Your task to perform on an android device: turn pop-ups on in chrome Image 0: 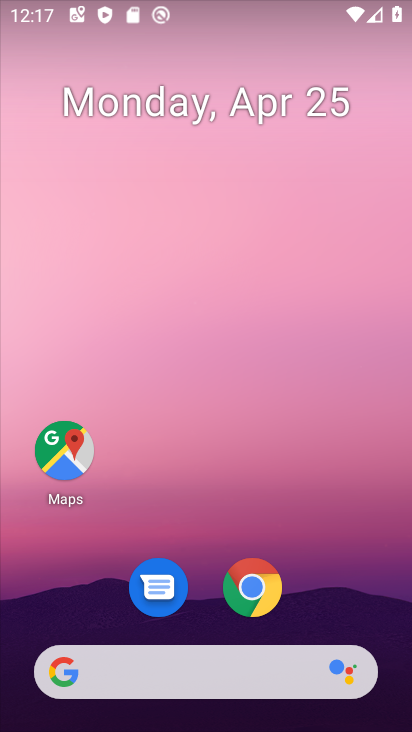
Step 0: drag from (354, 558) to (277, 139)
Your task to perform on an android device: turn pop-ups on in chrome Image 1: 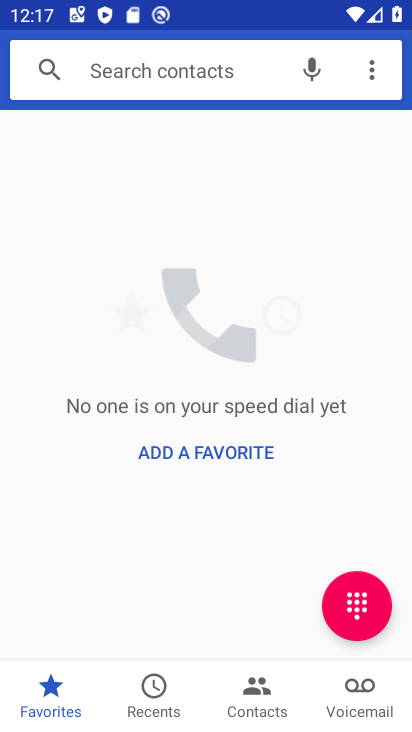
Step 1: press home button
Your task to perform on an android device: turn pop-ups on in chrome Image 2: 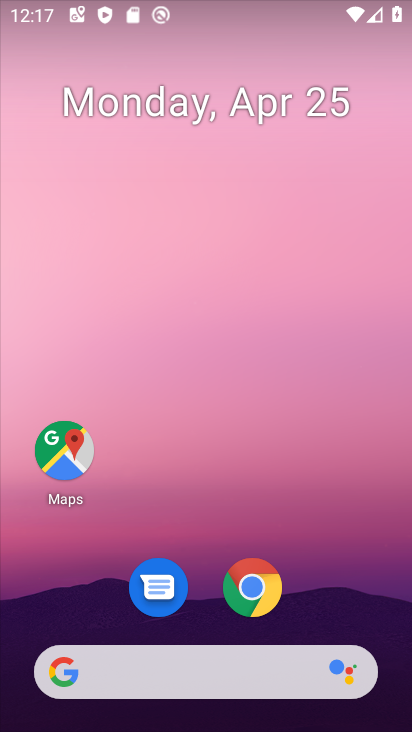
Step 2: drag from (362, 615) to (259, 181)
Your task to perform on an android device: turn pop-ups on in chrome Image 3: 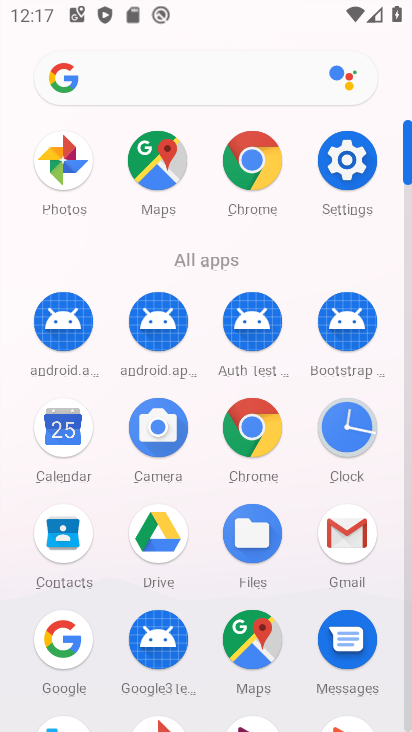
Step 3: click (256, 190)
Your task to perform on an android device: turn pop-ups on in chrome Image 4: 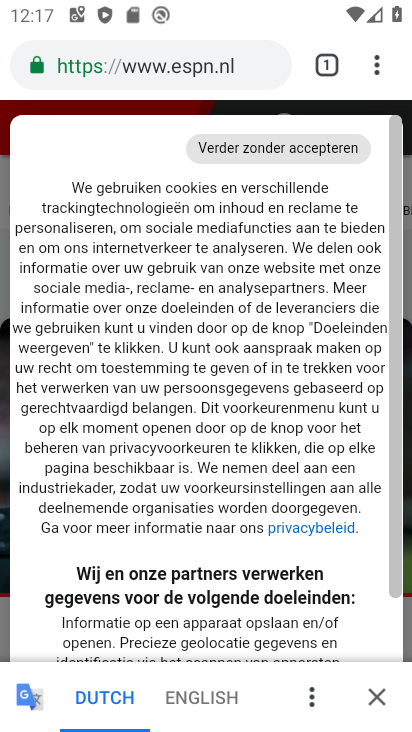
Step 4: drag from (371, 66) to (257, 636)
Your task to perform on an android device: turn pop-ups on in chrome Image 5: 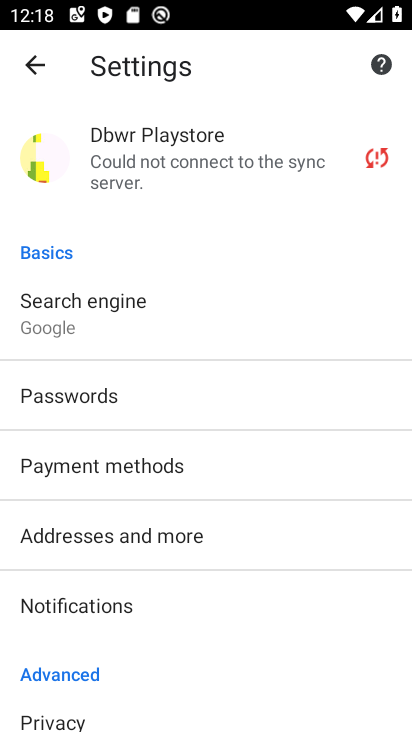
Step 5: drag from (257, 636) to (290, 263)
Your task to perform on an android device: turn pop-ups on in chrome Image 6: 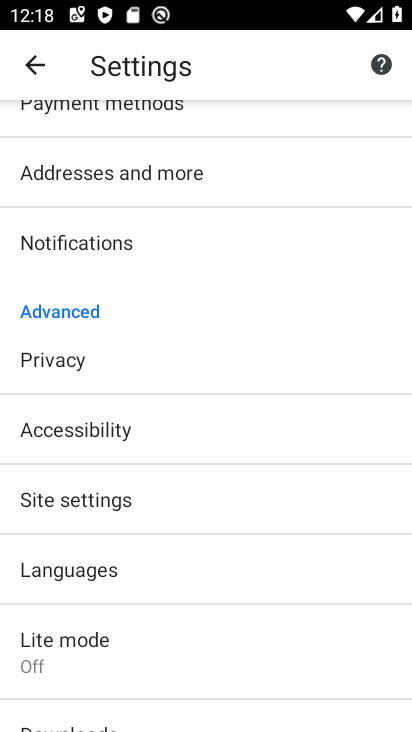
Step 6: click (212, 499)
Your task to perform on an android device: turn pop-ups on in chrome Image 7: 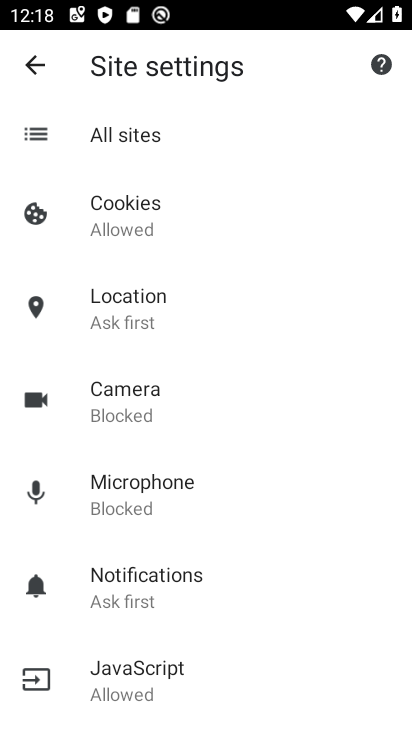
Step 7: drag from (229, 621) to (228, 271)
Your task to perform on an android device: turn pop-ups on in chrome Image 8: 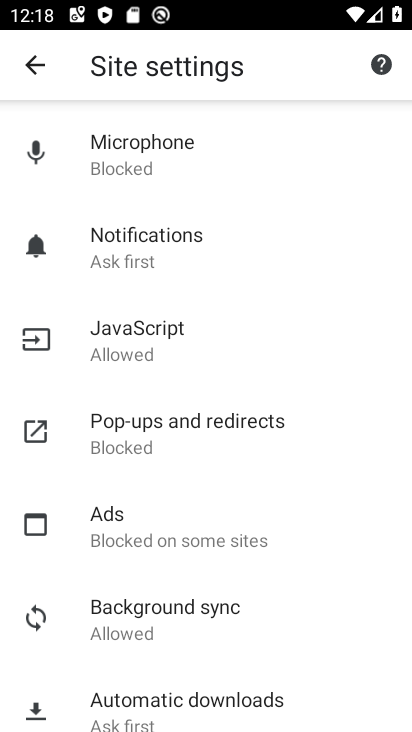
Step 8: click (217, 426)
Your task to perform on an android device: turn pop-ups on in chrome Image 9: 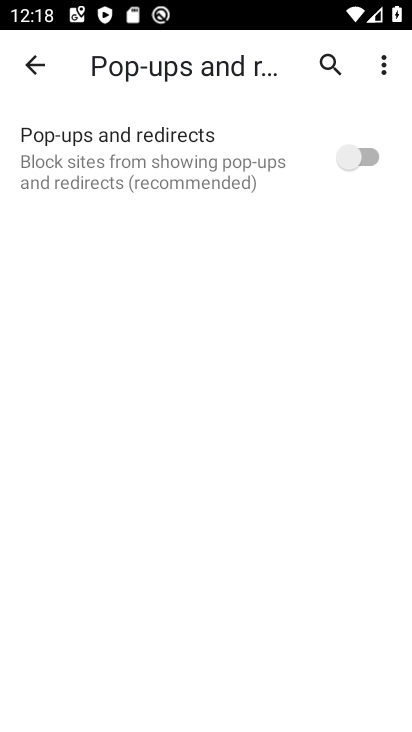
Step 9: click (367, 130)
Your task to perform on an android device: turn pop-ups on in chrome Image 10: 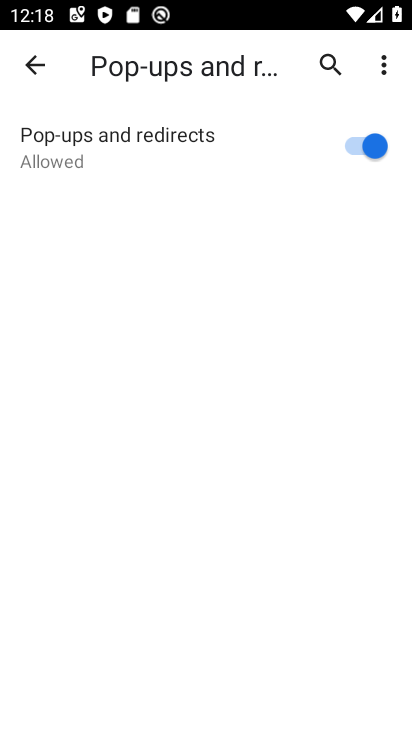
Step 10: task complete